Your task to perform on an android device: Search for seafood restaurants on Google Maps Image 0: 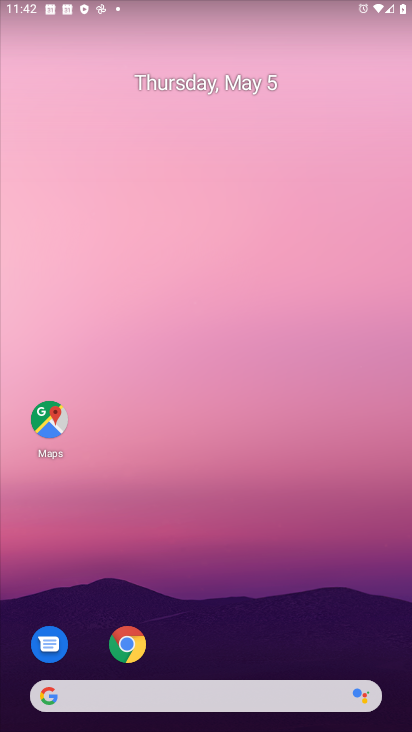
Step 0: drag from (225, 635) to (268, 208)
Your task to perform on an android device: Search for seafood restaurants on Google Maps Image 1: 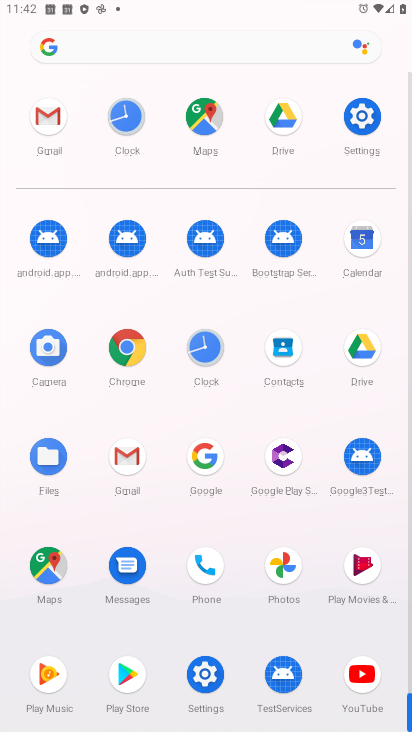
Step 1: drag from (175, 486) to (171, 269)
Your task to perform on an android device: Search for seafood restaurants on Google Maps Image 2: 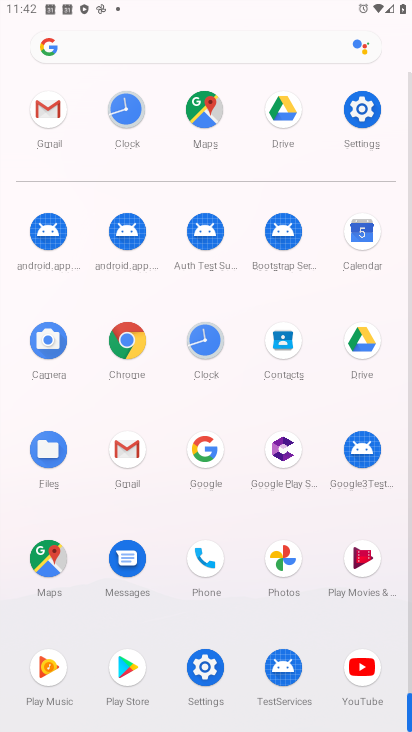
Step 2: drag from (98, 614) to (112, 376)
Your task to perform on an android device: Search for seafood restaurants on Google Maps Image 3: 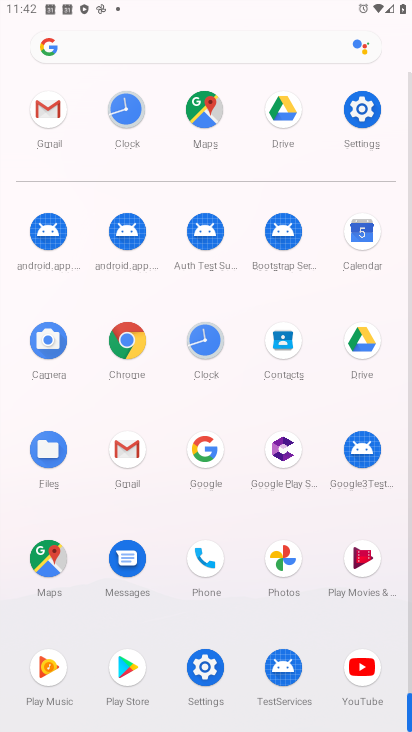
Step 3: click (38, 557)
Your task to perform on an android device: Search for seafood restaurants on Google Maps Image 4: 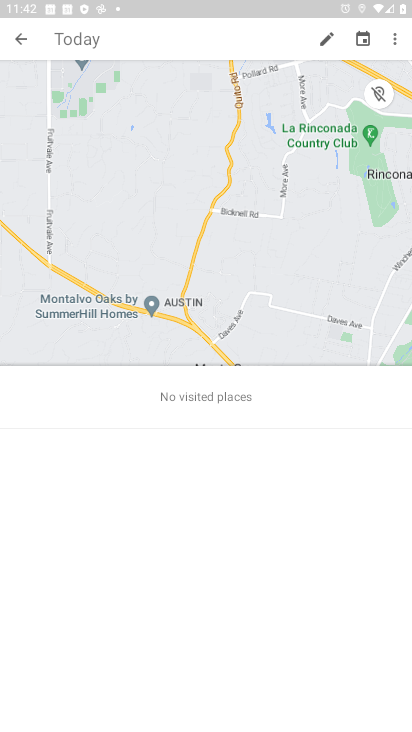
Step 4: drag from (192, 606) to (221, 332)
Your task to perform on an android device: Search for seafood restaurants on Google Maps Image 5: 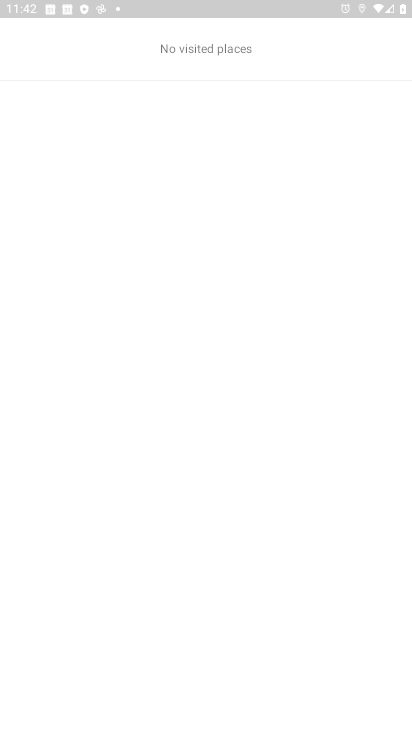
Step 5: drag from (284, 407) to (287, 180)
Your task to perform on an android device: Search for seafood restaurants on Google Maps Image 6: 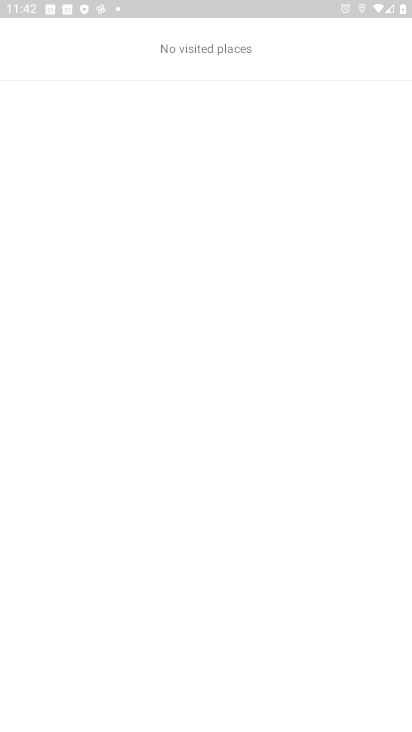
Step 6: drag from (210, 87) to (259, 731)
Your task to perform on an android device: Search for seafood restaurants on Google Maps Image 7: 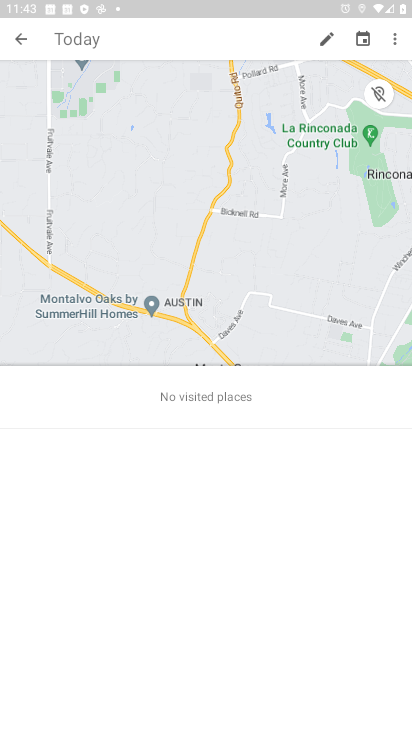
Step 7: press back button
Your task to perform on an android device: Search for seafood restaurants on Google Maps Image 8: 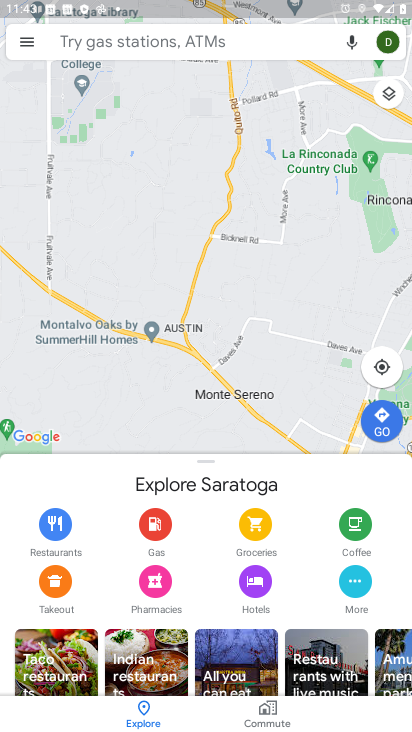
Step 8: click (183, 38)
Your task to perform on an android device: Search for seafood restaurants on Google Maps Image 9: 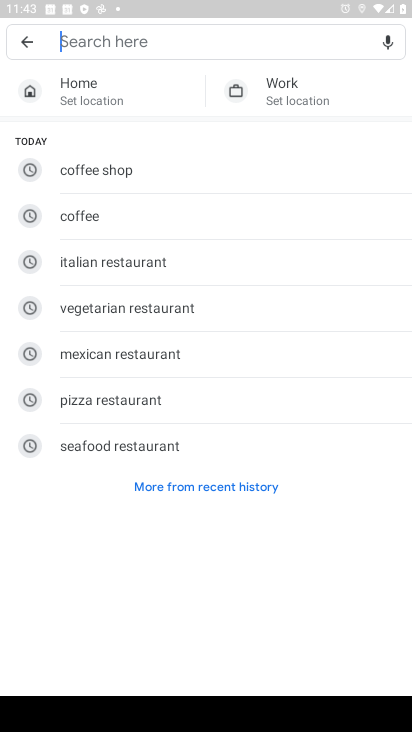
Step 9: type "seafood"
Your task to perform on an android device: Search for seafood restaurants on Google Maps Image 10: 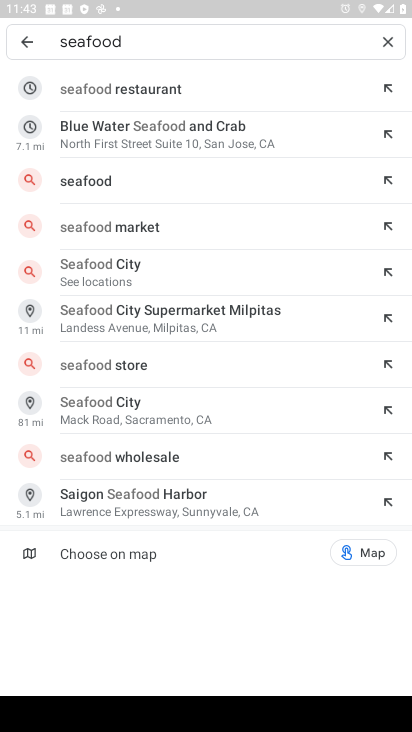
Step 10: click (179, 80)
Your task to perform on an android device: Search for seafood restaurants on Google Maps Image 11: 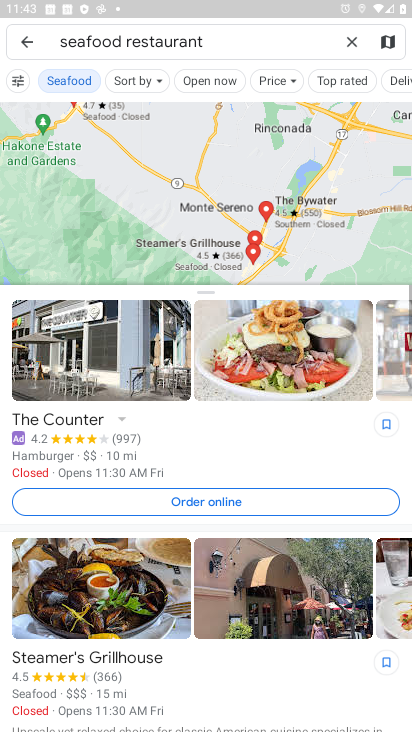
Step 11: task complete